Your task to perform on an android device: delete the emails in spam in the gmail app Image 0: 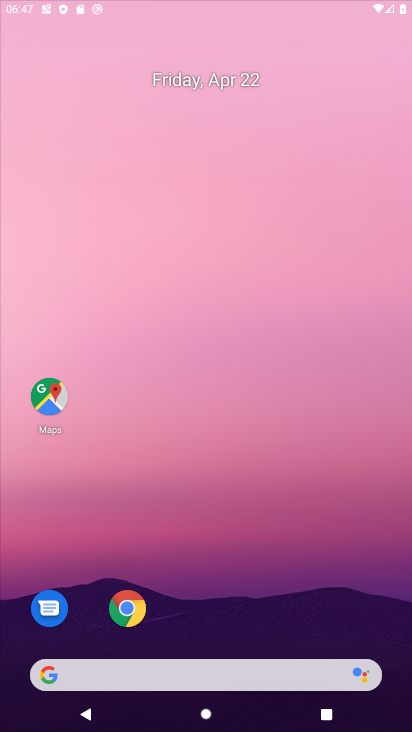
Step 0: drag from (270, 623) to (268, 108)
Your task to perform on an android device: delete the emails in spam in the gmail app Image 1: 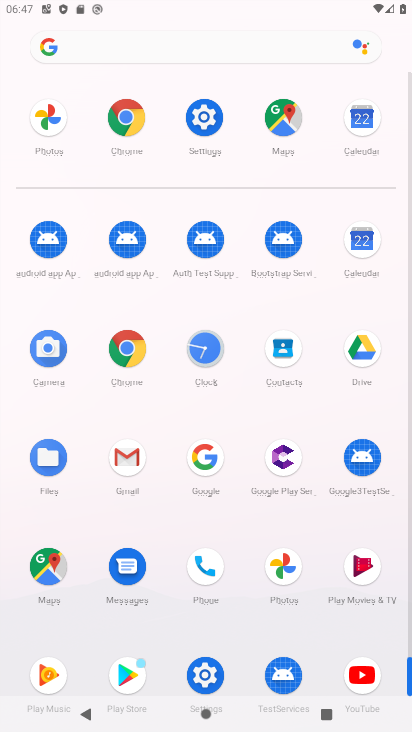
Step 1: click (116, 458)
Your task to perform on an android device: delete the emails in spam in the gmail app Image 2: 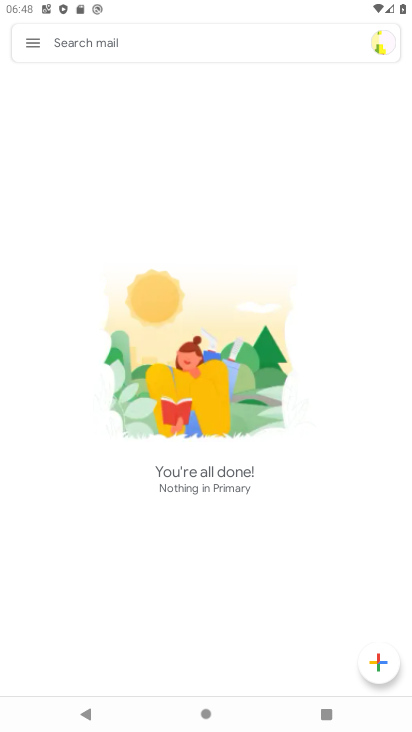
Step 2: click (34, 36)
Your task to perform on an android device: delete the emails in spam in the gmail app Image 3: 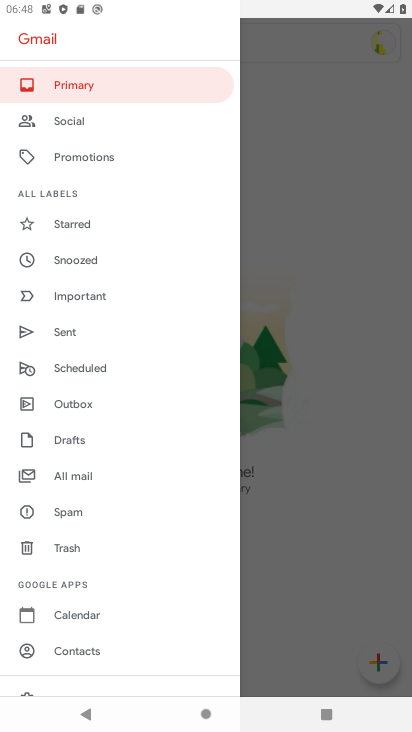
Step 3: click (78, 518)
Your task to perform on an android device: delete the emails in spam in the gmail app Image 4: 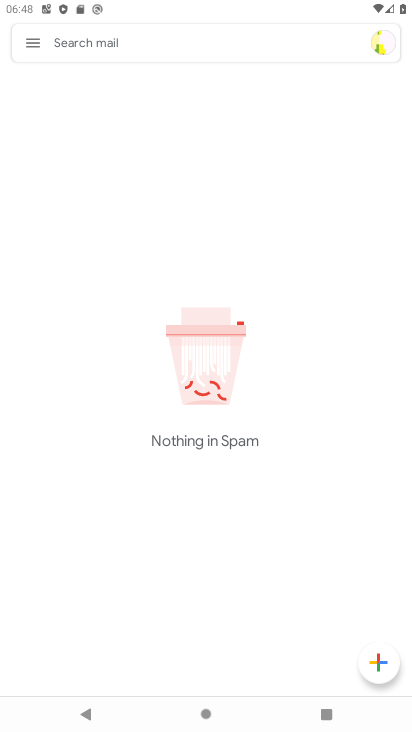
Step 4: task complete